Your task to perform on an android device: Go to Google Image 0: 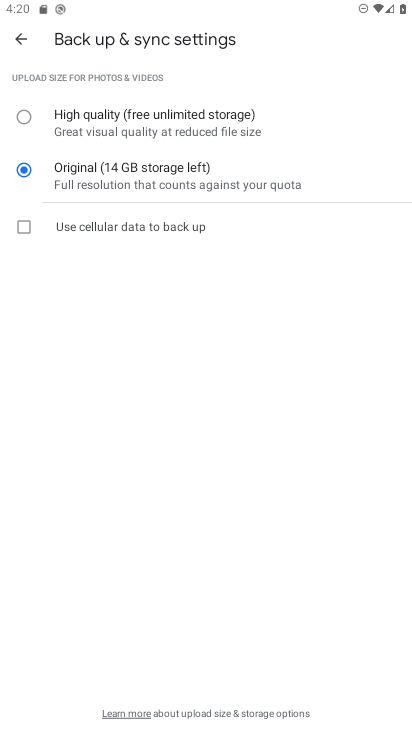
Step 0: press home button
Your task to perform on an android device: Go to Google Image 1: 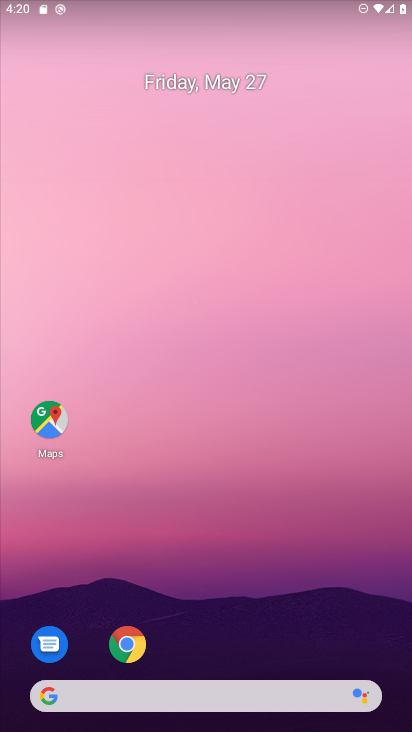
Step 1: click (203, 706)
Your task to perform on an android device: Go to Google Image 2: 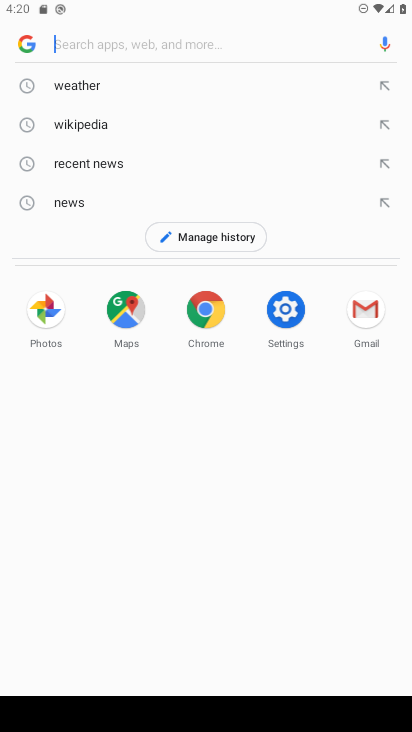
Step 2: task complete